Your task to perform on an android device: check storage Image 0: 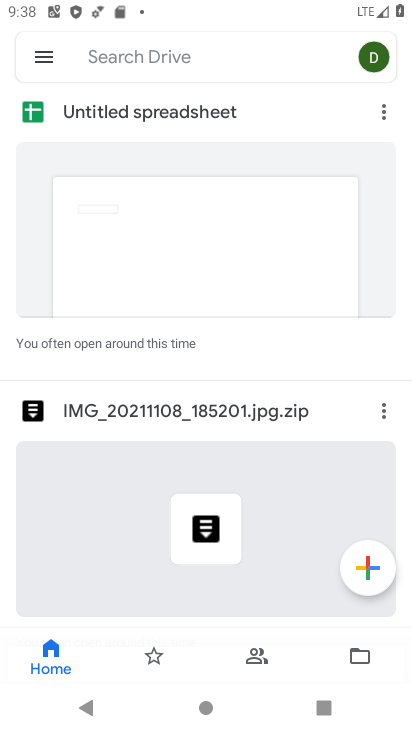
Step 0: press home button
Your task to perform on an android device: check storage Image 1: 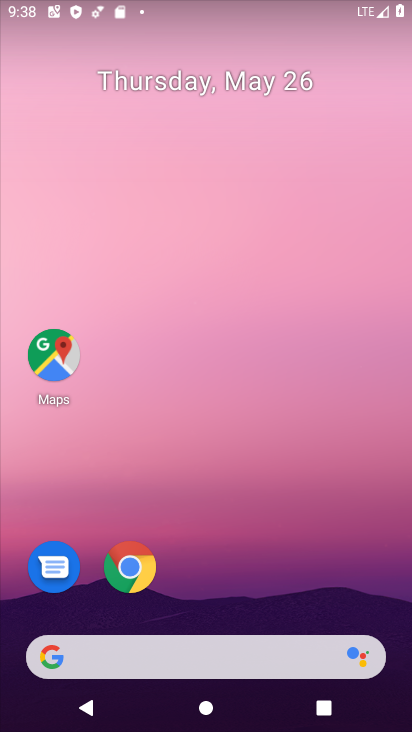
Step 1: drag from (161, 691) to (250, 131)
Your task to perform on an android device: check storage Image 2: 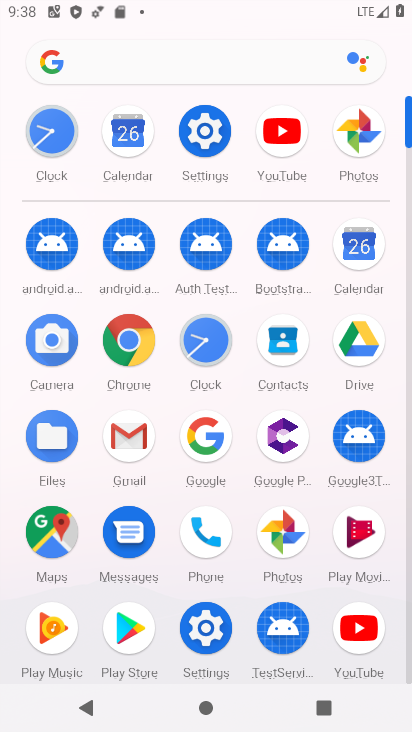
Step 2: click (209, 132)
Your task to perform on an android device: check storage Image 3: 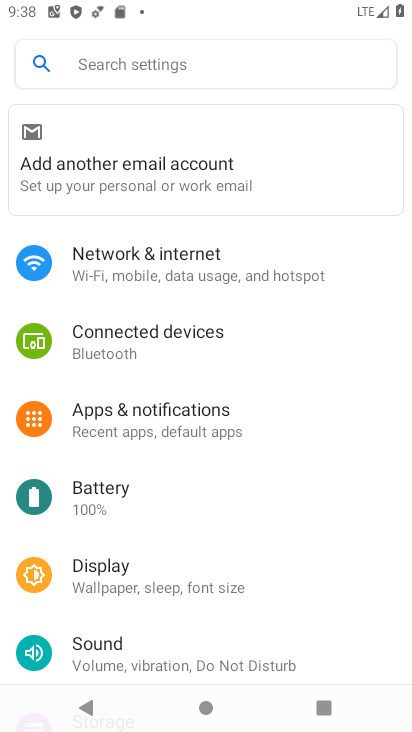
Step 3: drag from (247, 595) to (251, 165)
Your task to perform on an android device: check storage Image 4: 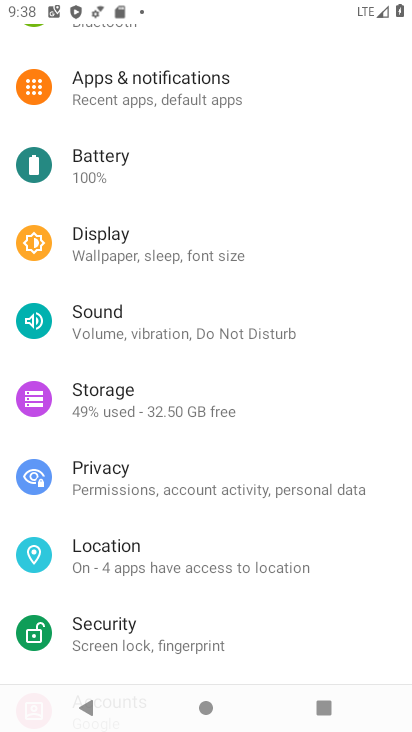
Step 4: click (169, 393)
Your task to perform on an android device: check storage Image 5: 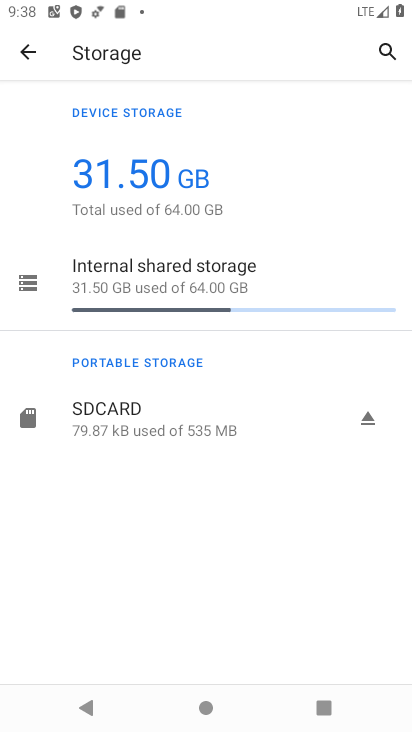
Step 5: task complete